Your task to perform on an android device: refresh tabs in the chrome app Image 0: 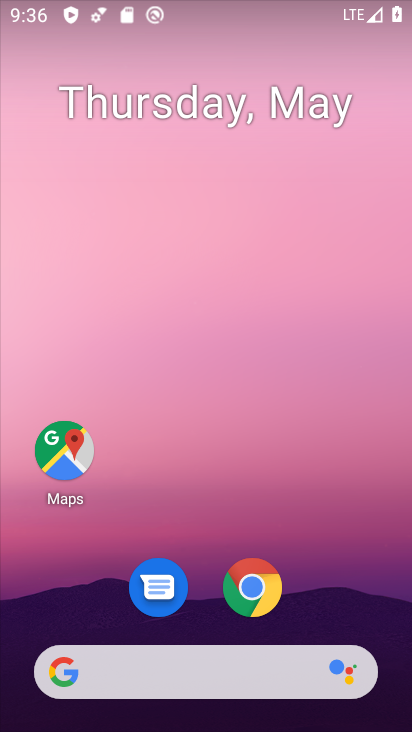
Step 0: click (253, 589)
Your task to perform on an android device: refresh tabs in the chrome app Image 1: 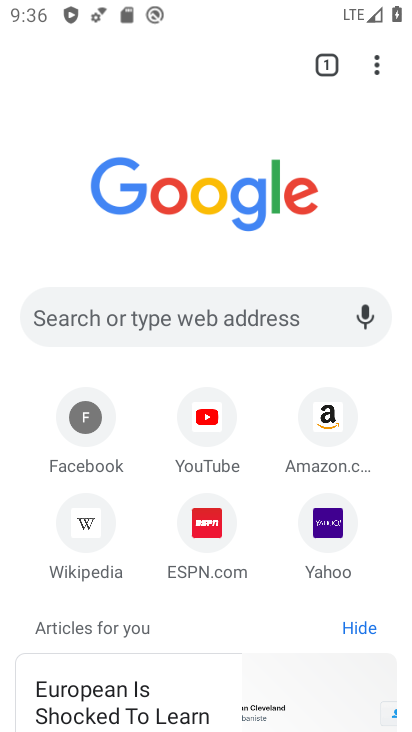
Step 1: click (376, 67)
Your task to perform on an android device: refresh tabs in the chrome app Image 2: 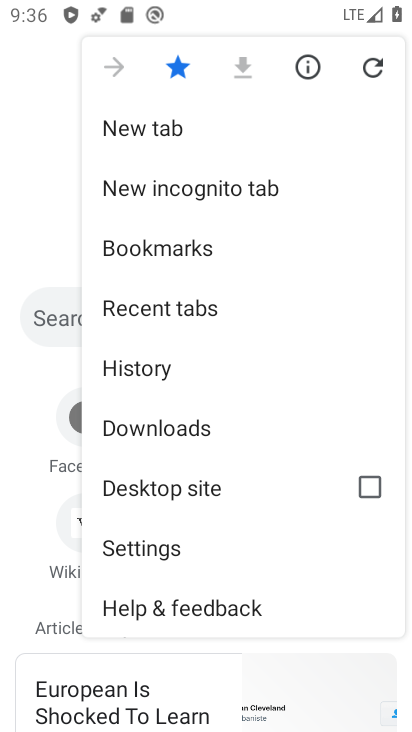
Step 2: click (376, 67)
Your task to perform on an android device: refresh tabs in the chrome app Image 3: 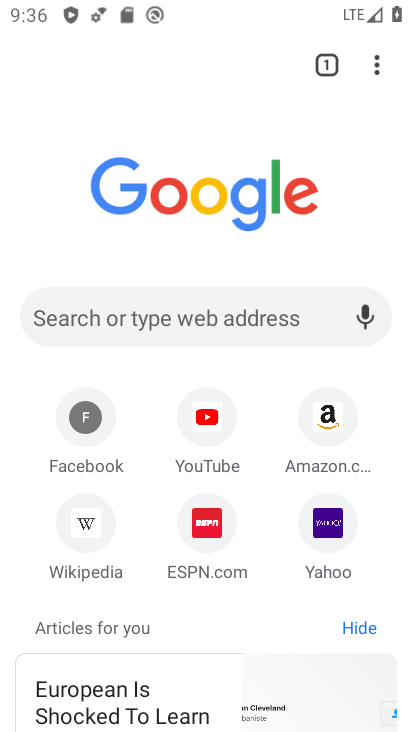
Step 3: task complete